Your task to perform on an android device: Open the map Image 0: 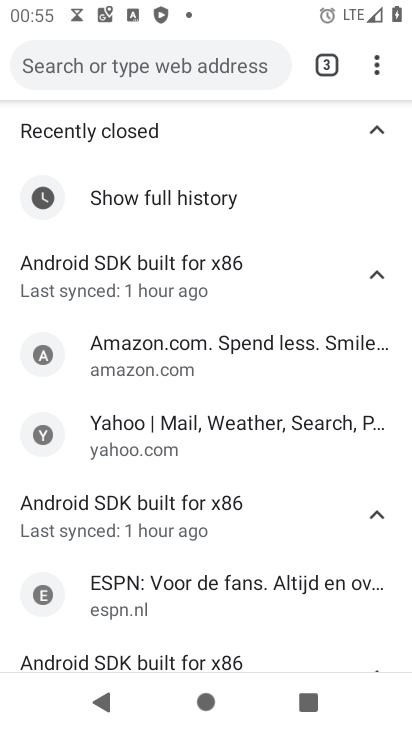
Step 0: press home button
Your task to perform on an android device: Open the map Image 1: 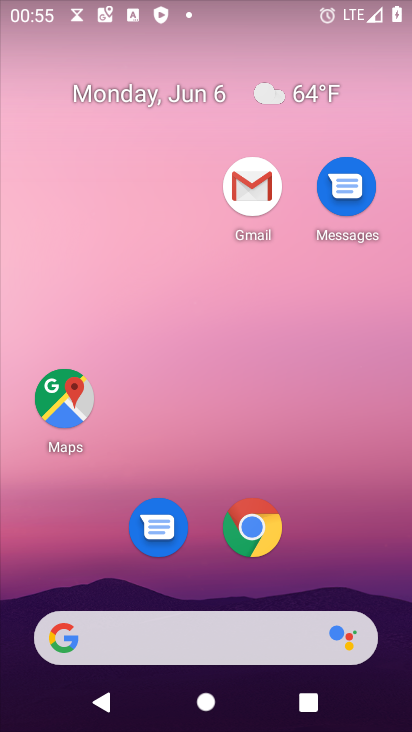
Step 1: click (83, 395)
Your task to perform on an android device: Open the map Image 2: 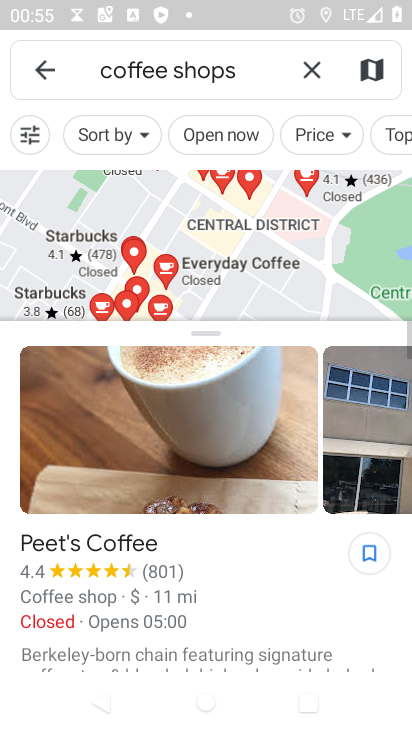
Step 2: task complete